Your task to perform on an android device: empty trash in the gmail app Image 0: 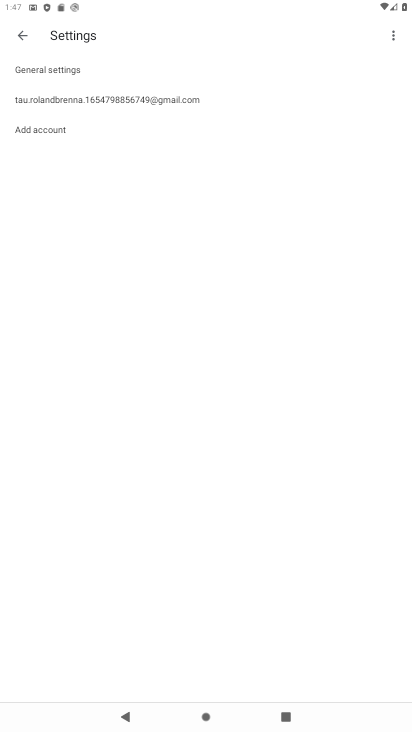
Step 0: press home button
Your task to perform on an android device: empty trash in the gmail app Image 1: 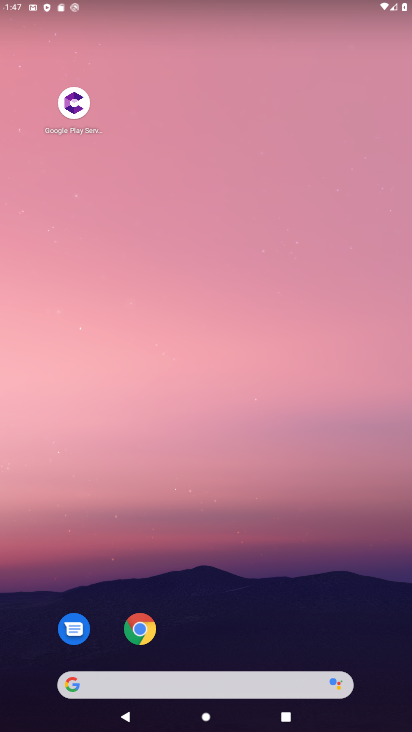
Step 1: drag from (255, 554) to (242, 4)
Your task to perform on an android device: empty trash in the gmail app Image 2: 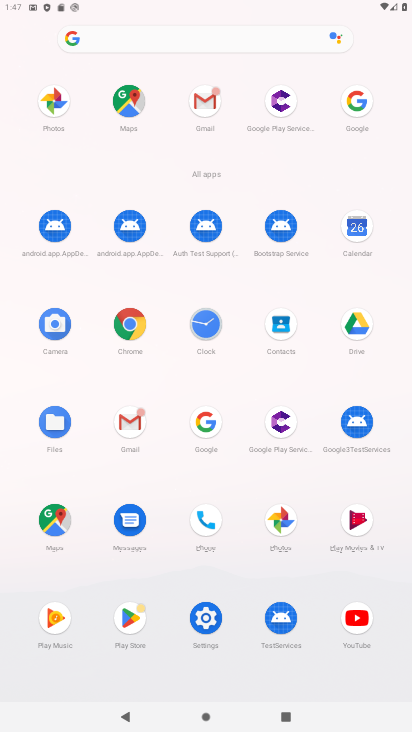
Step 2: click (127, 422)
Your task to perform on an android device: empty trash in the gmail app Image 3: 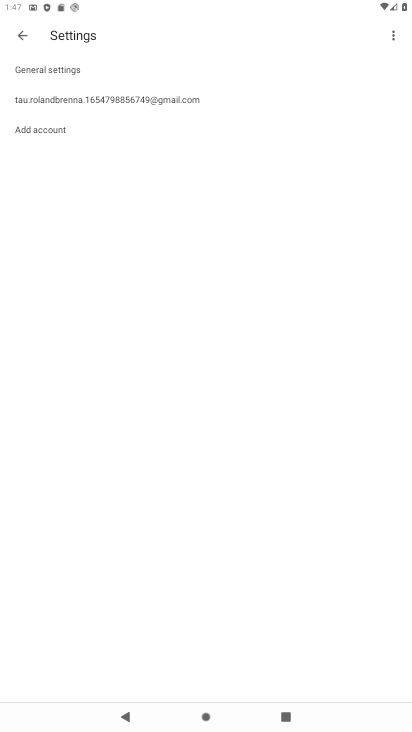
Step 3: click (23, 31)
Your task to perform on an android device: empty trash in the gmail app Image 4: 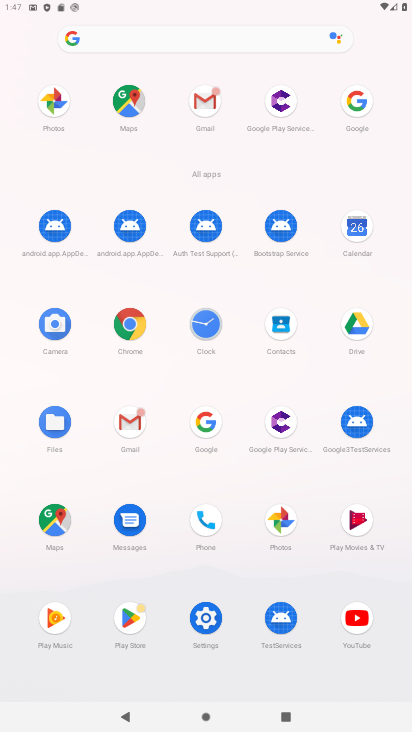
Step 4: click (202, 103)
Your task to perform on an android device: empty trash in the gmail app Image 5: 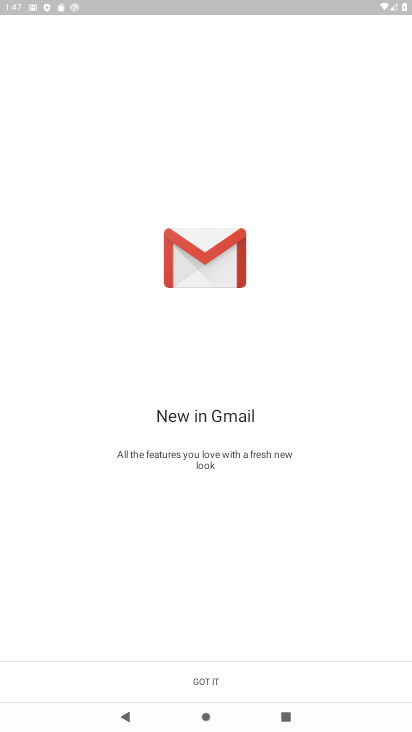
Step 5: click (205, 686)
Your task to perform on an android device: empty trash in the gmail app Image 6: 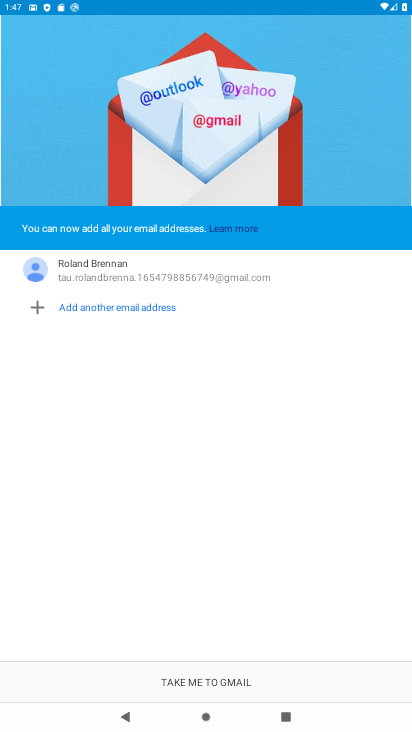
Step 6: click (205, 686)
Your task to perform on an android device: empty trash in the gmail app Image 7: 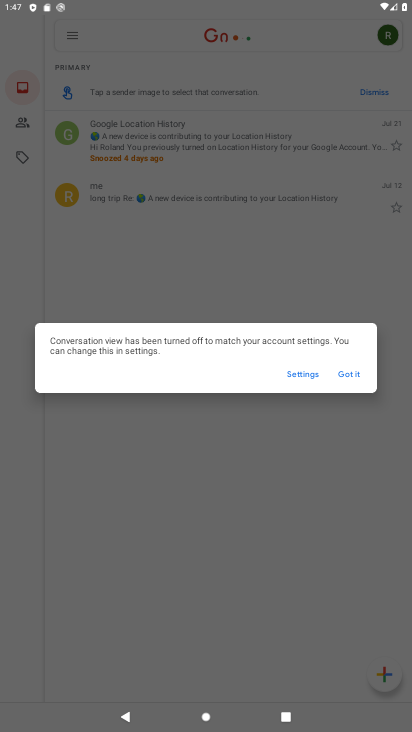
Step 7: click (344, 376)
Your task to perform on an android device: empty trash in the gmail app Image 8: 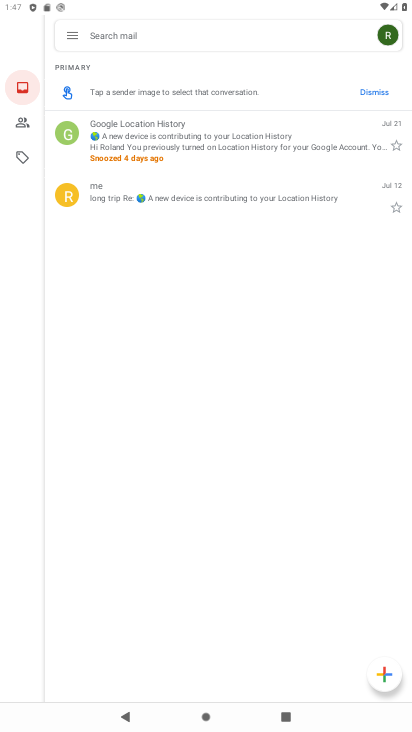
Step 8: click (70, 38)
Your task to perform on an android device: empty trash in the gmail app Image 9: 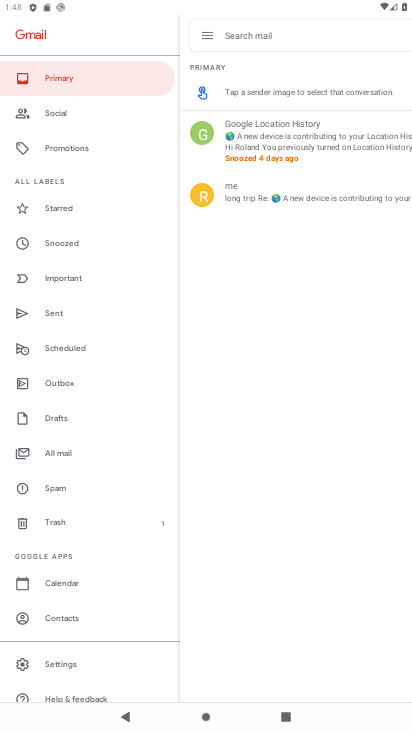
Step 9: click (51, 523)
Your task to perform on an android device: empty trash in the gmail app Image 10: 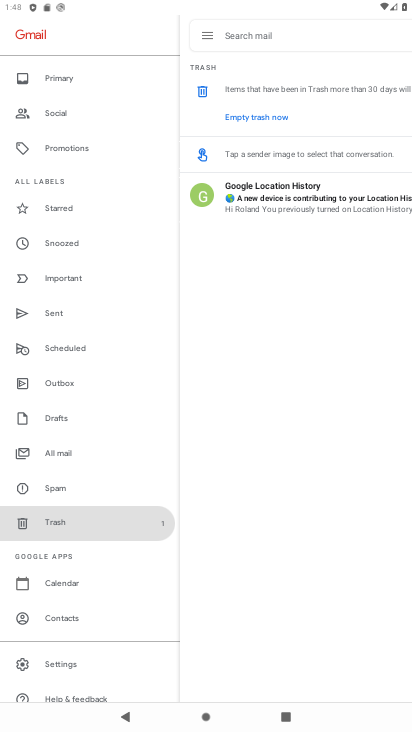
Step 10: click (253, 107)
Your task to perform on an android device: empty trash in the gmail app Image 11: 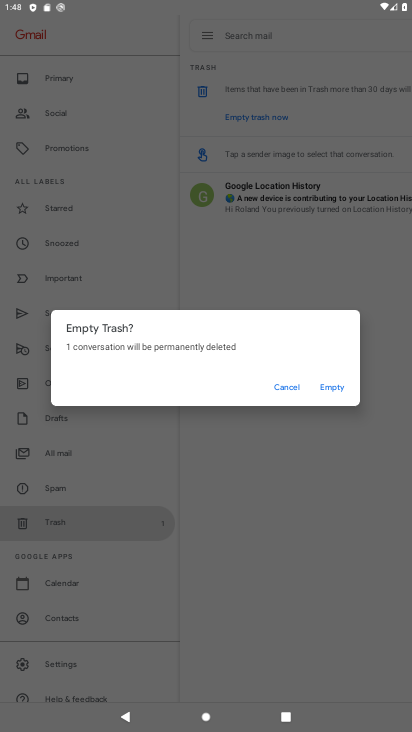
Step 11: click (330, 386)
Your task to perform on an android device: empty trash in the gmail app Image 12: 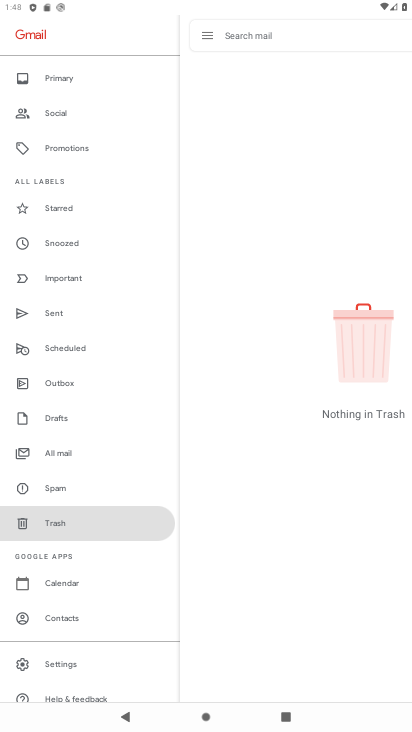
Step 12: task complete